Your task to perform on an android device: Show me recent news Image 0: 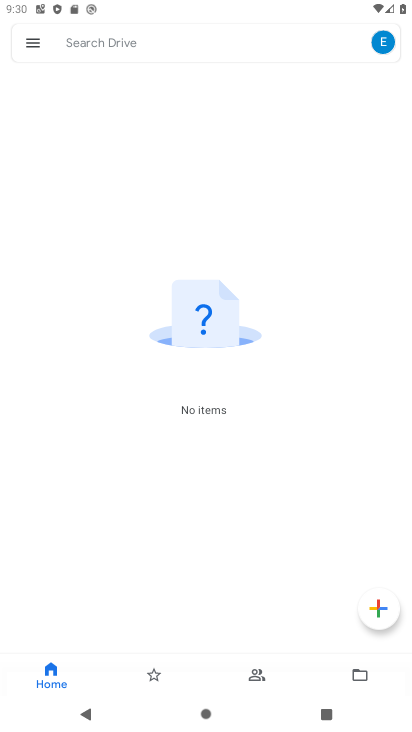
Step 0: press home button
Your task to perform on an android device: Show me recent news Image 1: 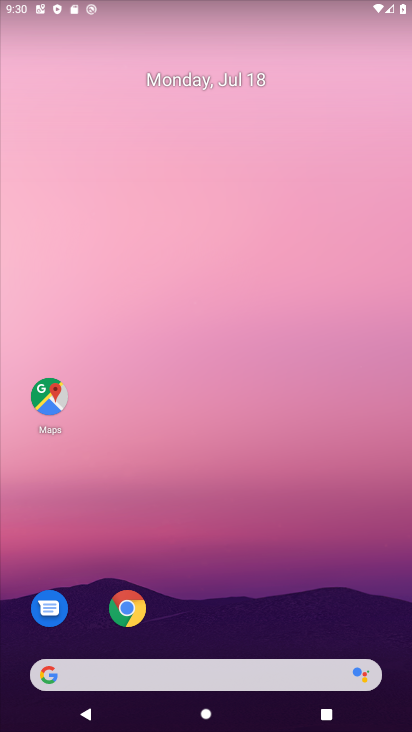
Step 1: drag from (212, 434) to (258, 0)
Your task to perform on an android device: Show me recent news Image 2: 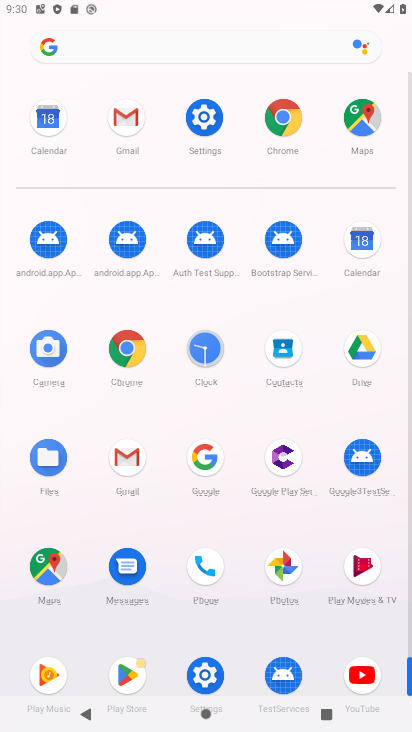
Step 2: click (162, 52)
Your task to perform on an android device: Show me recent news Image 3: 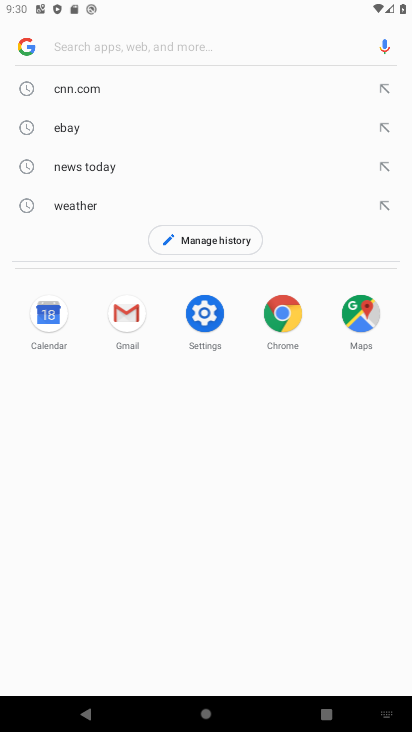
Step 3: type "recent news"
Your task to perform on an android device: Show me recent news Image 4: 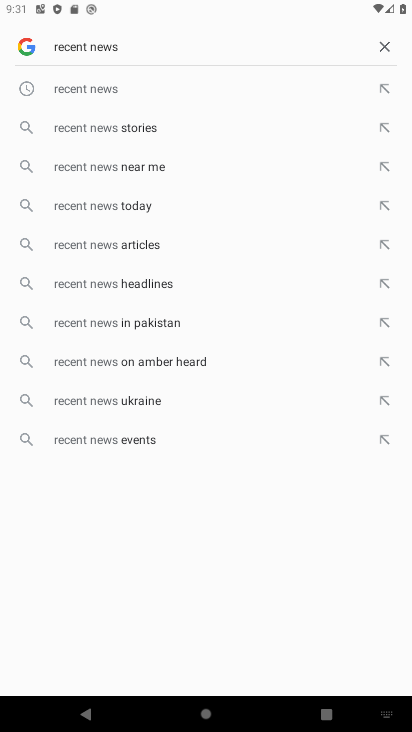
Step 4: click (108, 92)
Your task to perform on an android device: Show me recent news Image 5: 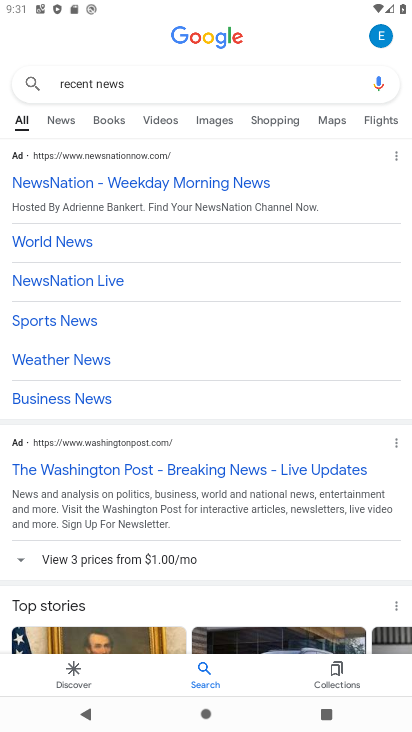
Step 5: task complete